Your task to perform on an android device: search for starred emails in the gmail app Image 0: 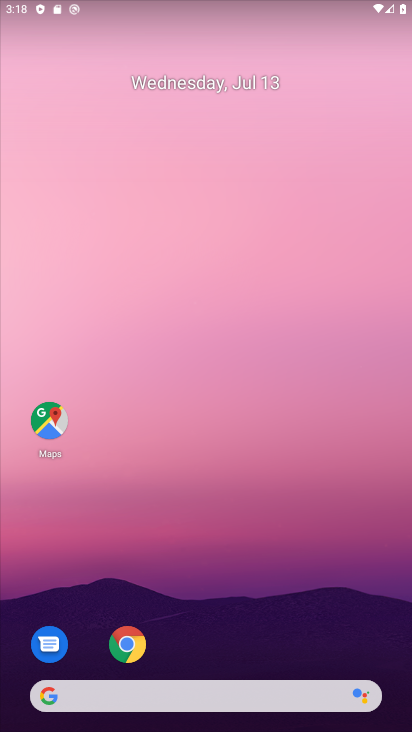
Step 0: drag from (187, 659) to (157, 218)
Your task to perform on an android device: search for starred emails in the gmail app Image 1: 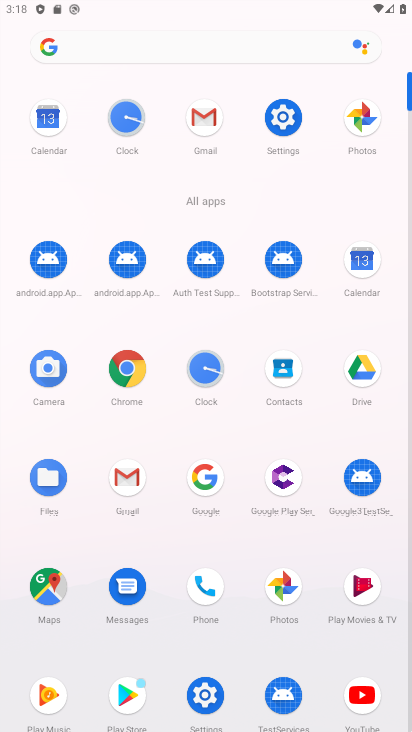
Step 1: click (210, 120)
Your task to perform on an android device: search for starred emails in the gmail app Image 2: 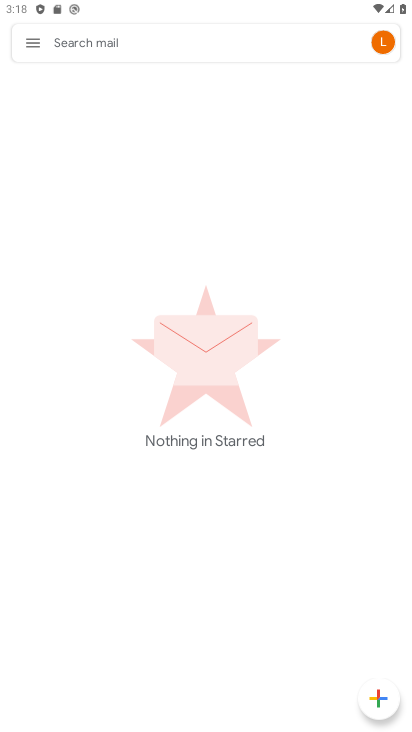
Step 2: click (36, 52)
Your task to perform on an android device: search for starred emails in the gmail app Image 3: 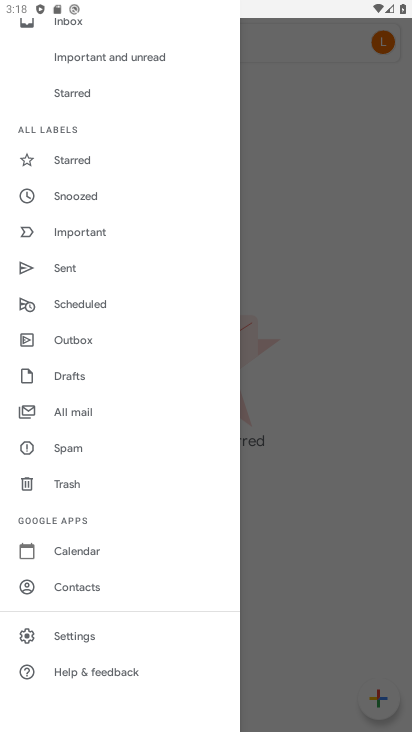
Step 3: click (86, 165)
Your task to perform on an android device: search for starred emails in the gmail app Image 4: 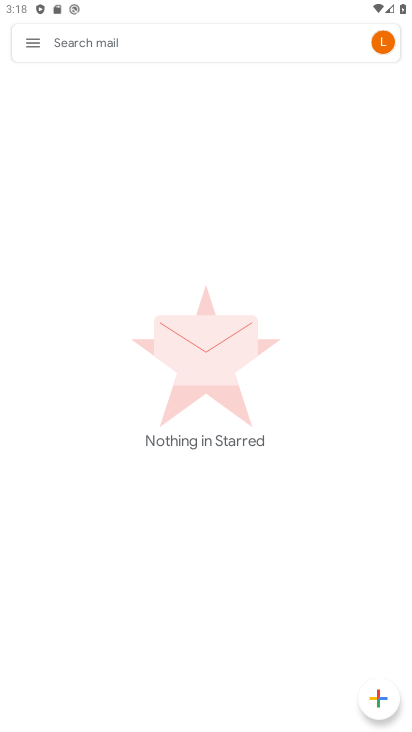
Step 4: task complete